Your task to perform on an android device: Search for logitech g pro on ebay.com, select the first entry, add it to the cart, then select checkout. Image 0: 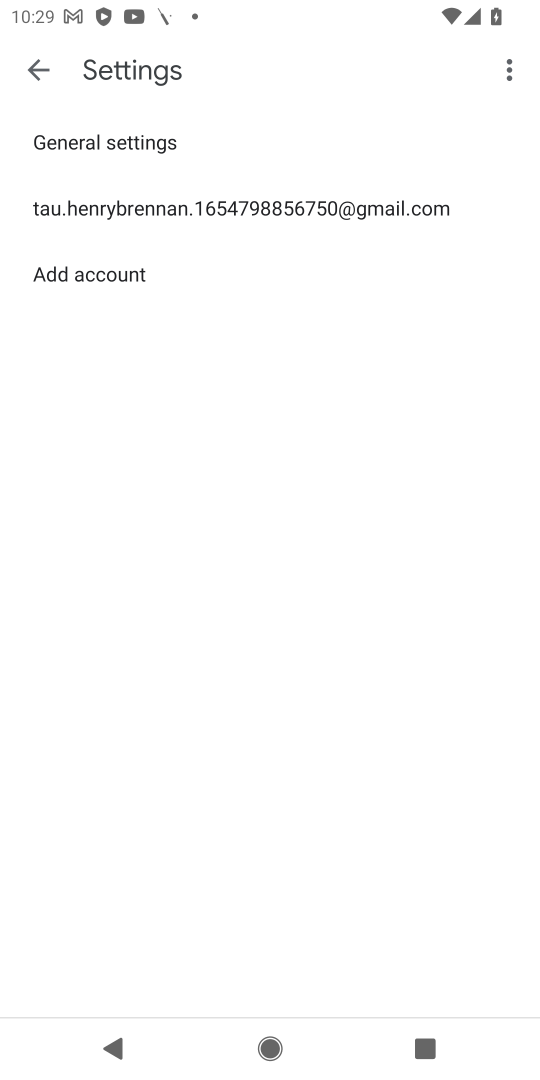
Step 0: press home button
Your task to perform on an android device: Search for logitech g pro on ebay.com, select the first entry, add it to the cart, then select checkout. Image 1: 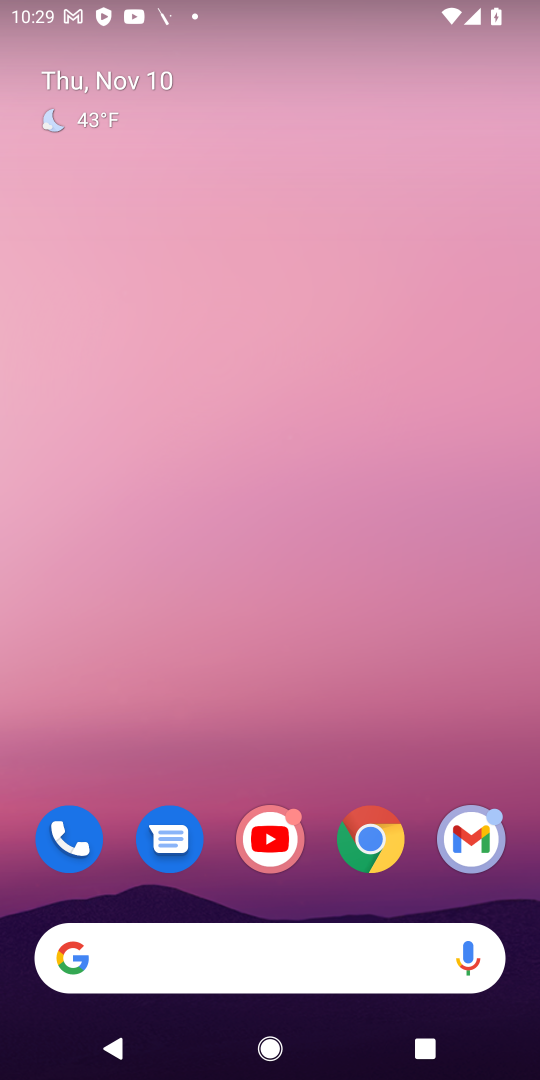
Step 1: click (381, 831)
Your task to perform on an android device: Search for logitech g pro on ebay.com, select the first entry, add it to the cart, then select checkout. Image 2: 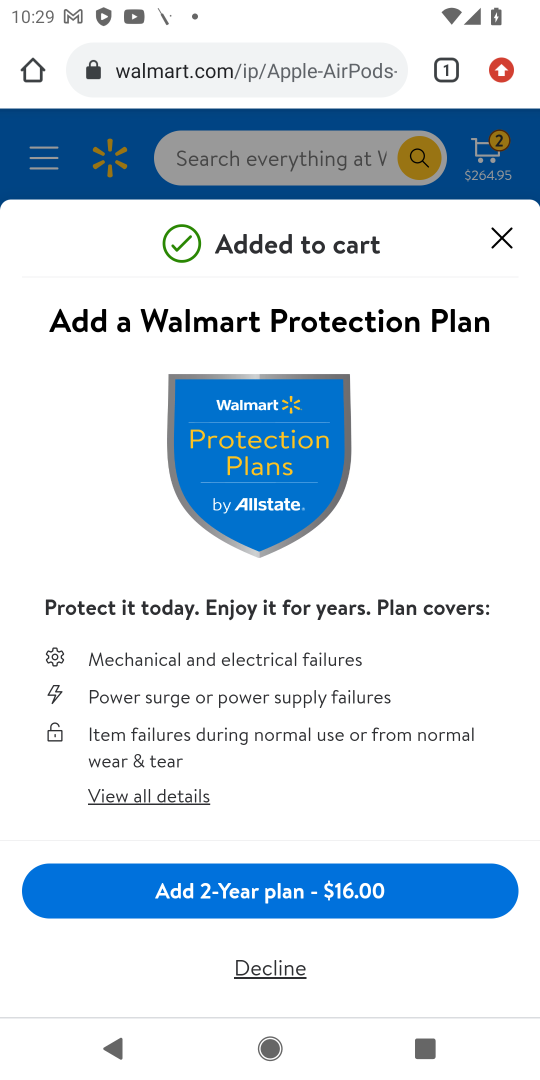
Step 2: click (300, 55)
Your task to perform on an android device: Search for logitech g pro on ebay.com, select the first entry, add it to the cart, then select checkout. Image 3: 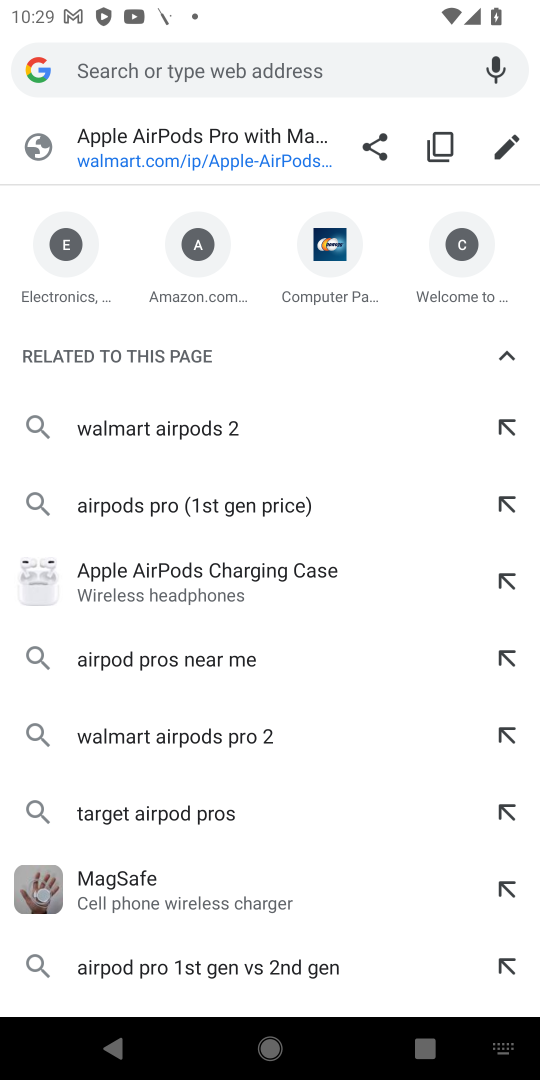
Step 3: press enter
Your task to perform on an android device: Search for logitech g pro on ebay.com, select the first entry, add it to the cart, then select checkout. Image 4: 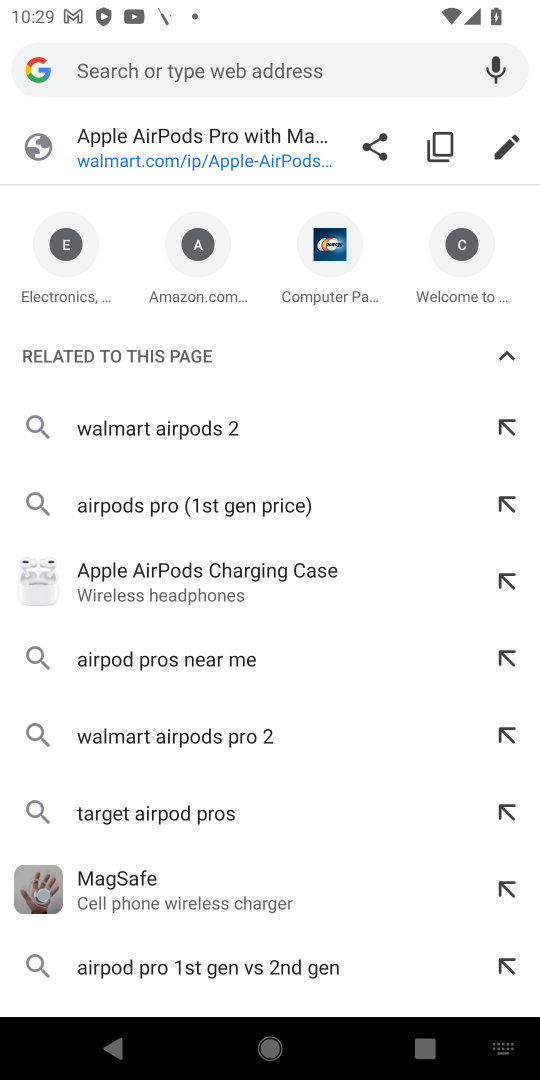
Step 4: type "ebay.com"
Your task to perform on an android device: Search for logitech g pro on ebay.com, select the first entry, add it to the cart, then select checkout. Image 5: 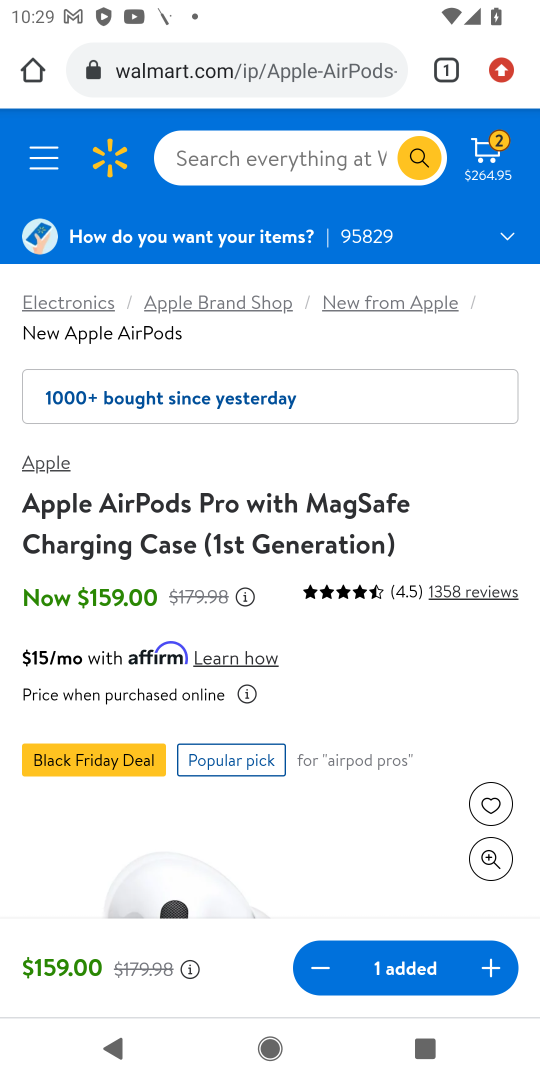
Step 5: click (218, 58)
Your task to perform on an android device: Search for logitech g pro on ebay.com, select the first entry, add it to the cart, then select checkout. Image 6: 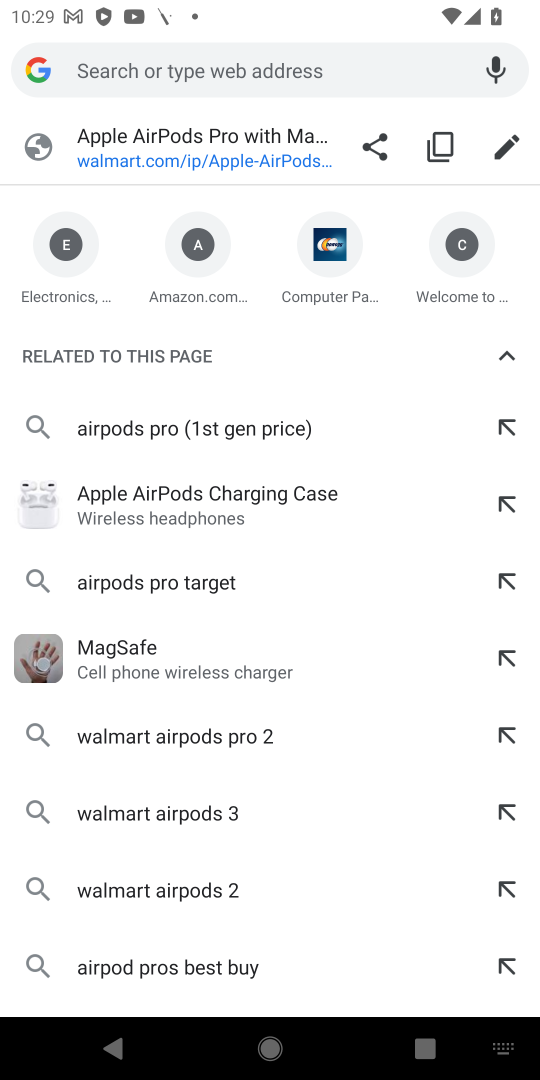
Step 6: type "ebay.com"
Your task to perform on an android device: Search for logitech g pro on ebay.com, select the first entry, add it to the cart, then select checkout. Image 7: 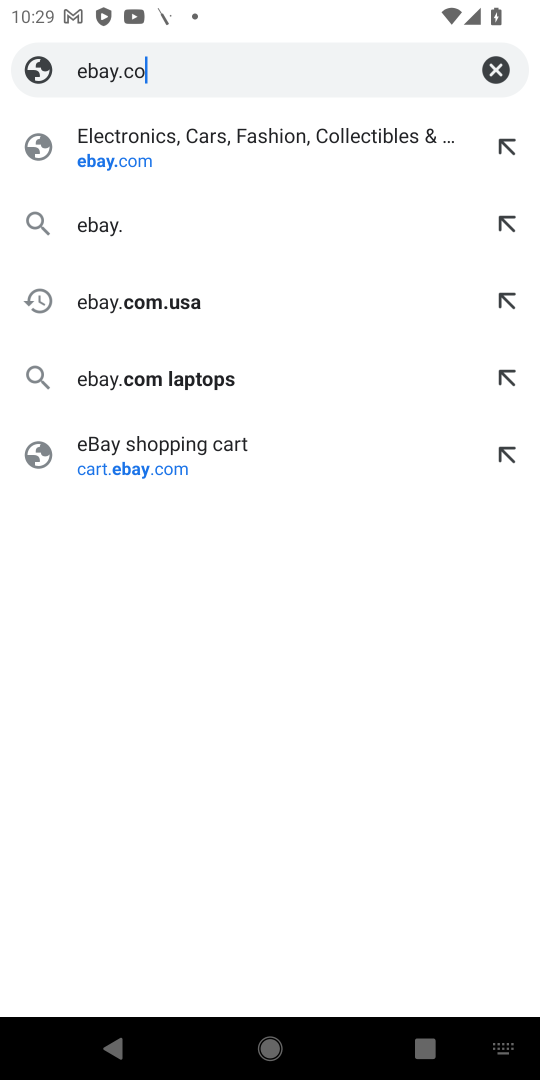
Step 7: press enter
Your task to perform on an android device: Search for logitech g pro on ebay.com, select the first entry, add it to the cart, then select checkout. Image 8: 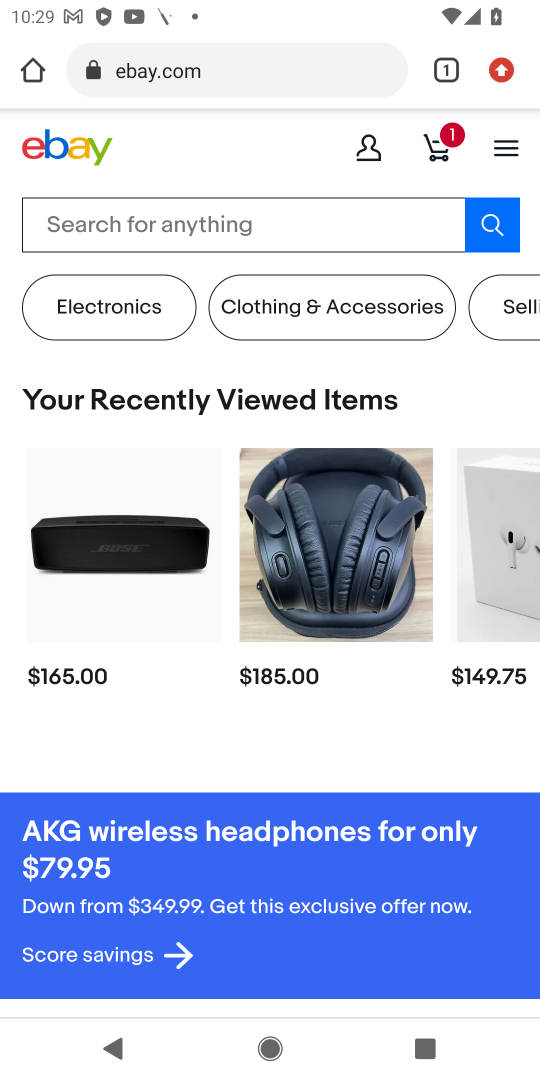
Step 8: click (271, 237)
Your task to perform on an android device: Search for logitech g pro on ebay.com, select the first entry, add it to the cart, then select checkout. Image 9: 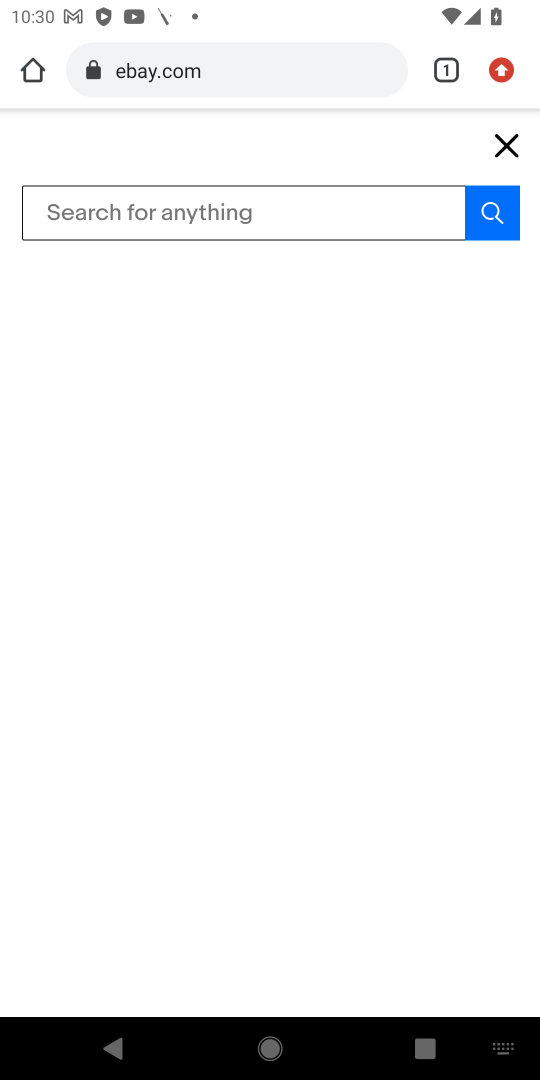
Step 9: type "logitech g pro"
Your task to perform on an android device: Search for logitech g pro on ebay.com, select the first entry, add it to the cart, then select checkout. Image 10: 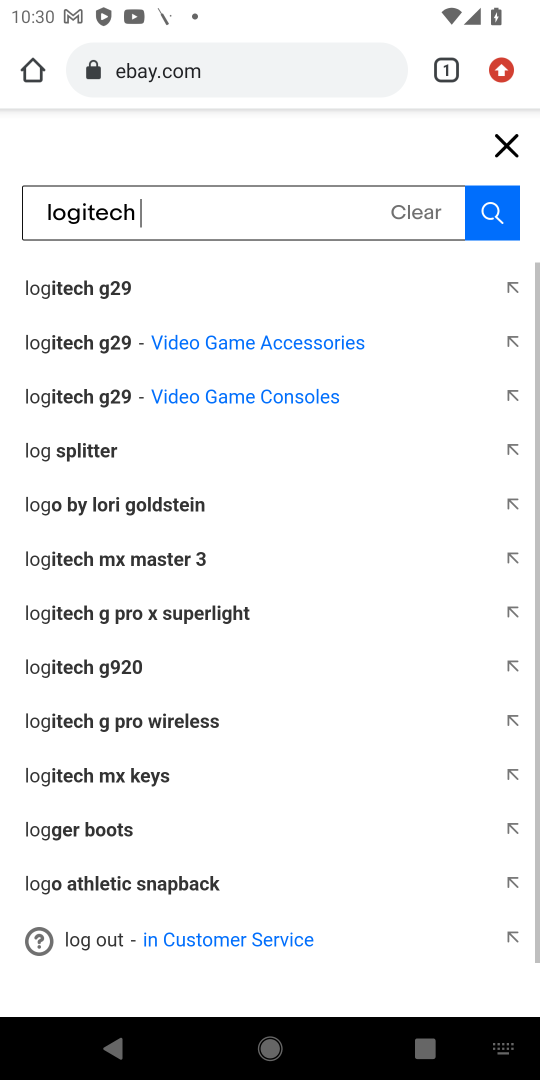
Step 10: press enter
Your task to perform on an android device: Search for logitech g pro on ebay.com, select the first entry, add it to the cart, then select checkout. Image 11: 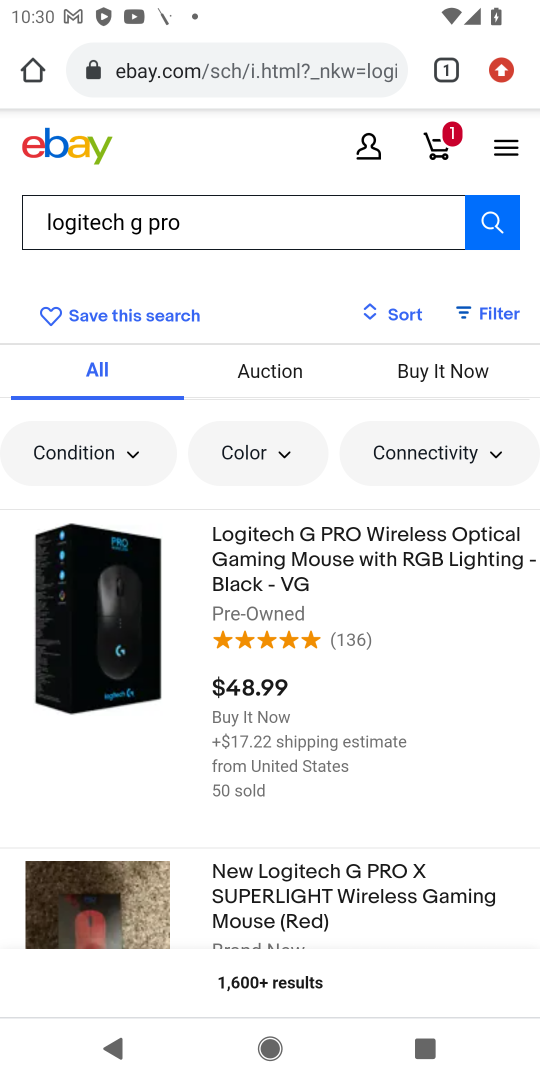
Step 11: click (382, 531)
Your task to perform on an android device: Search for logitech g pro on ebay.com, select the first entry, add it to the cart, then select checkout. Image 12: 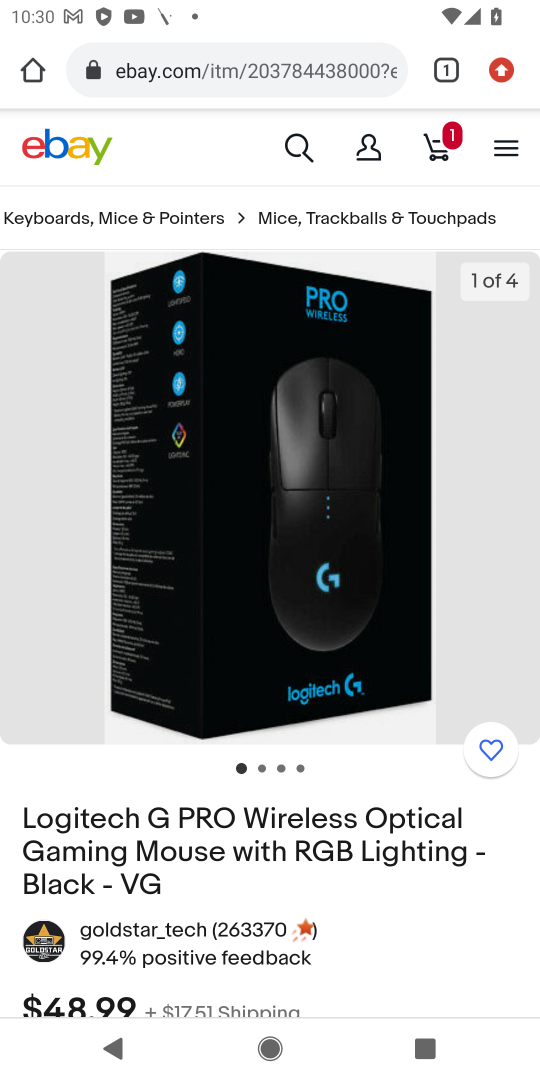
Step 12: drag from (405, 869) to (362, 395)
Your task to perform on an android device: Search for logitech g pro on ebay.com, select the first entry, add it to the cart, then select checkout. Image 13: 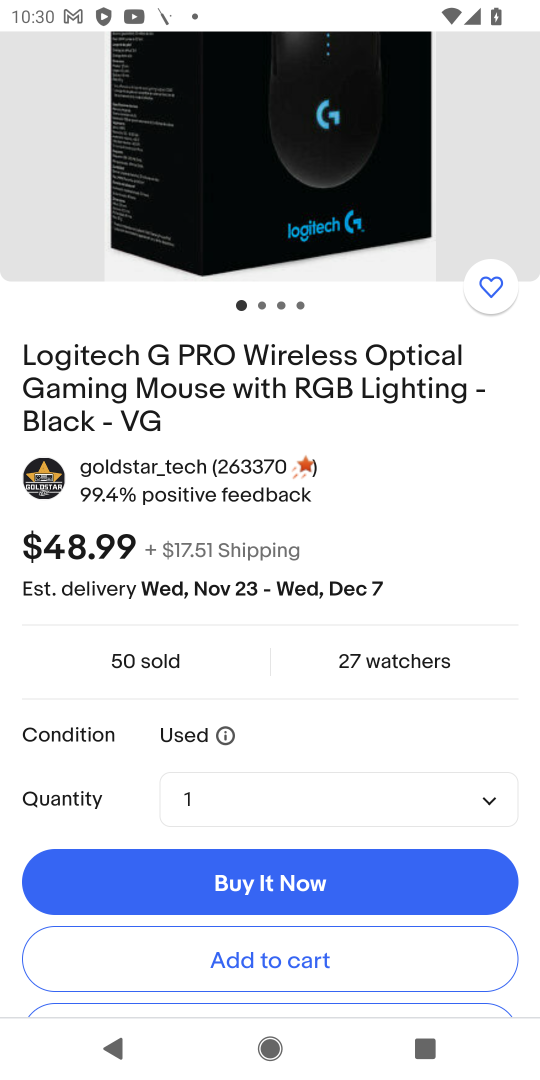
Step 13: drag from (462, 660) to (484, 375)
Your task to perform on an android device: Search for logitech g pro on ebay.com, select the first entry, add it to the cart, then select checkout. Image 14: 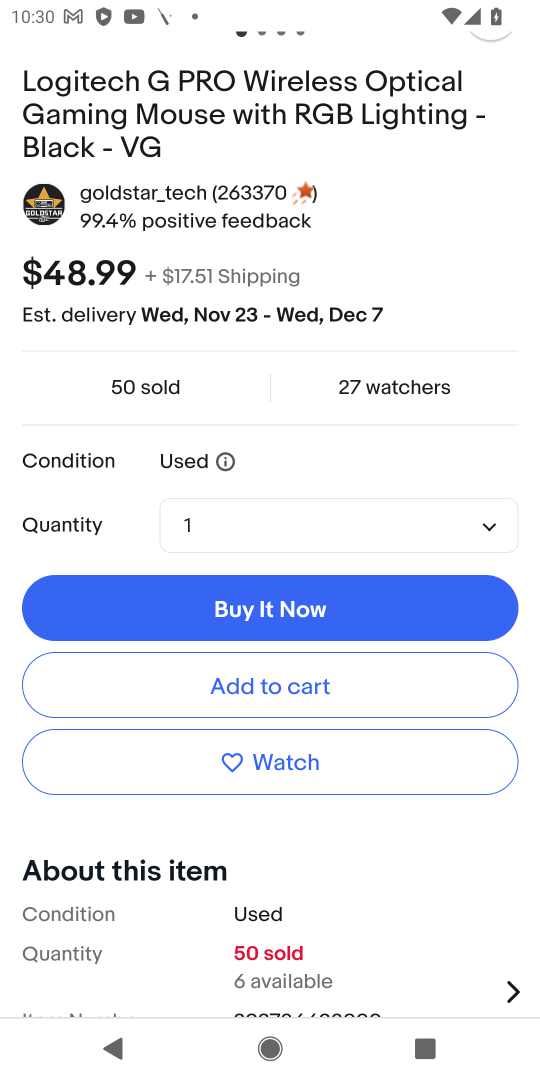
Step 14: click (264, 693)
Your task to perform on an android device: Search for logitech g pro on ebay.com, select the first entry, add it to the cart, then select checkout. Image 15: 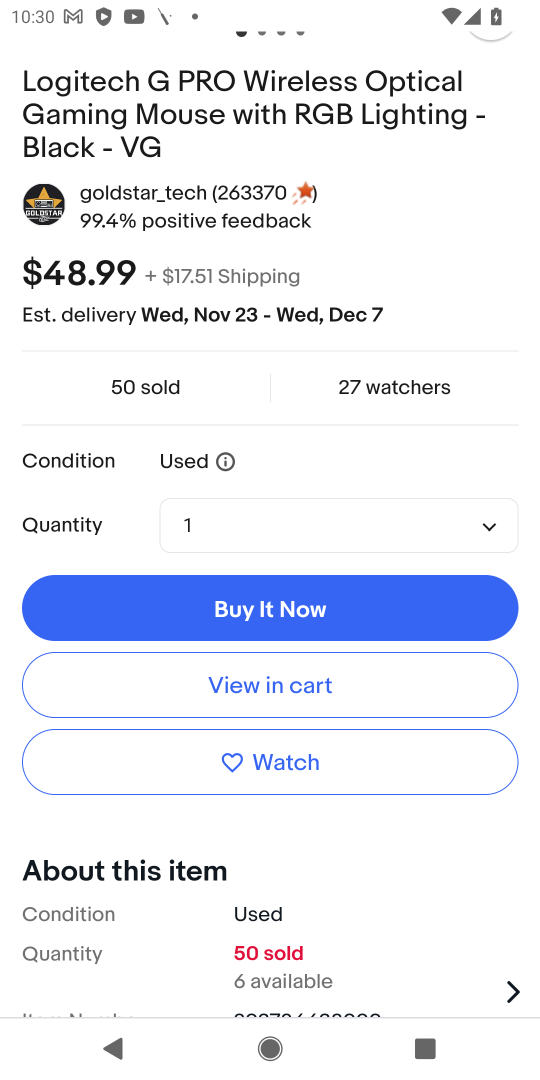
Step 15: click (264, 693)
Your task to perform on an android device: Search for logitech g pro on ebay.com, select the first entry, add it to the cart, then select checkout. Image 16: 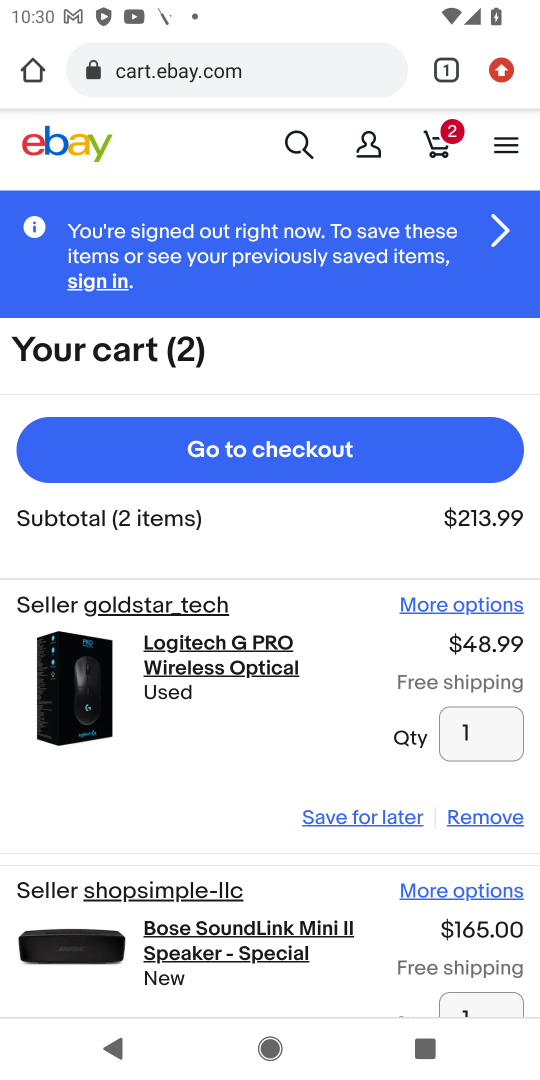
Step 16: click (317, 444)
Your task to perform on an android device: Search for logitech g pro on ebay.com, select the first entry, add it to the cart, then select checkout. Image 17: 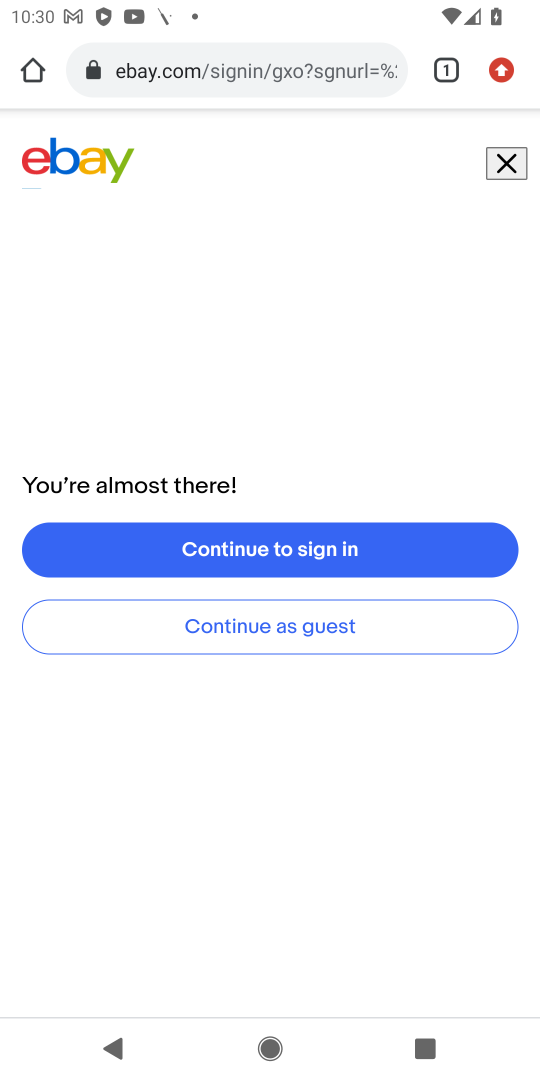
Step 17: task complete